Your task to perform on an android device: delete location history Image 0: 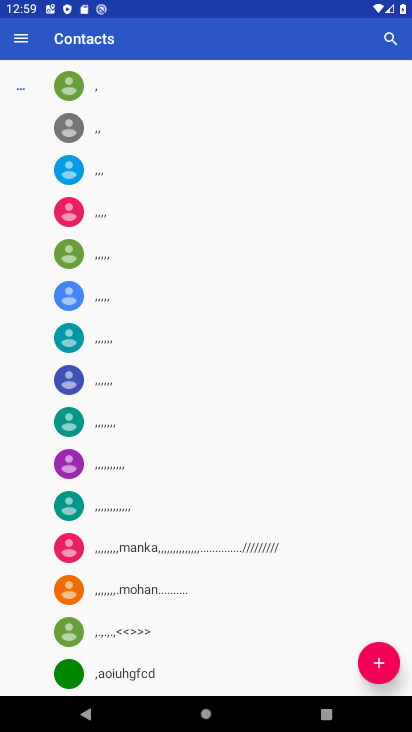
Step 0: press home button
Your task to perform on an android device: delete location history Image 1: 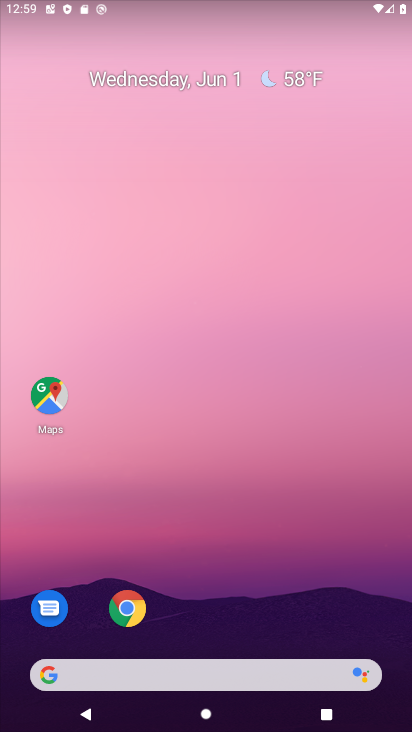
Step 1: drag from (237, 467) to (294, 165)
Your task to perform on an android device: delete location history Image 2: 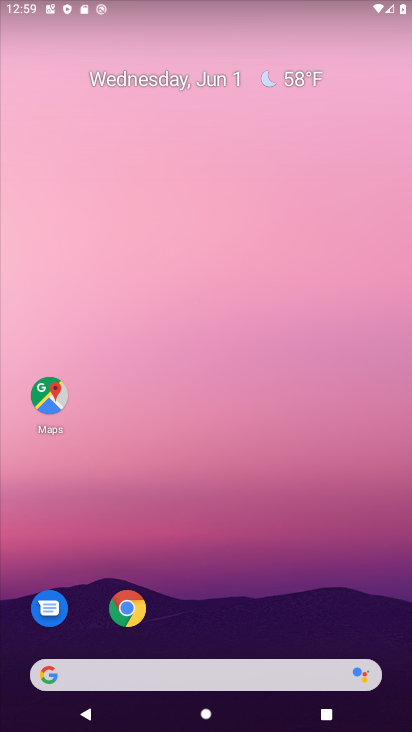
Step 2: drag from (178, 671) to (297, 147)
Your task to perform on an android device: delete location history Image 3: 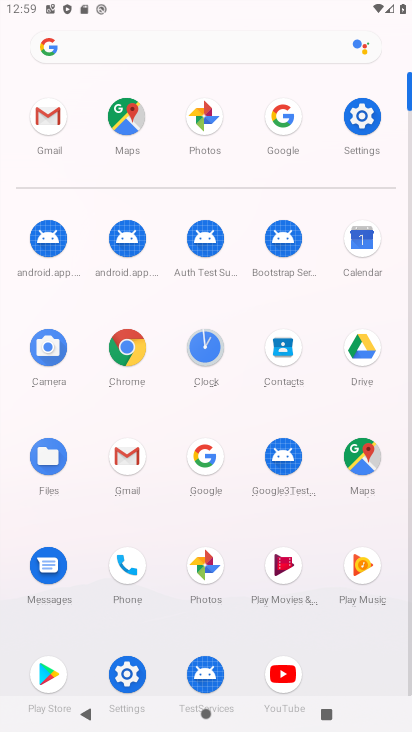
Step 3: click (362, 113)
Your task to perform on an android device: delete location history Image 4: 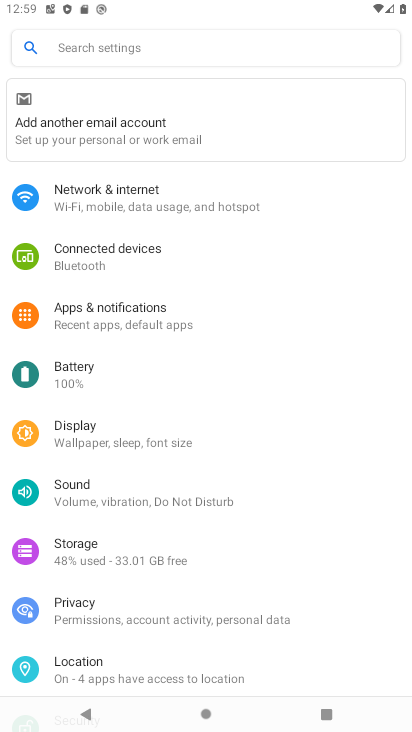
Step 4: click (105, 665)
Your task to perform on an android device: delete location history Image 5: 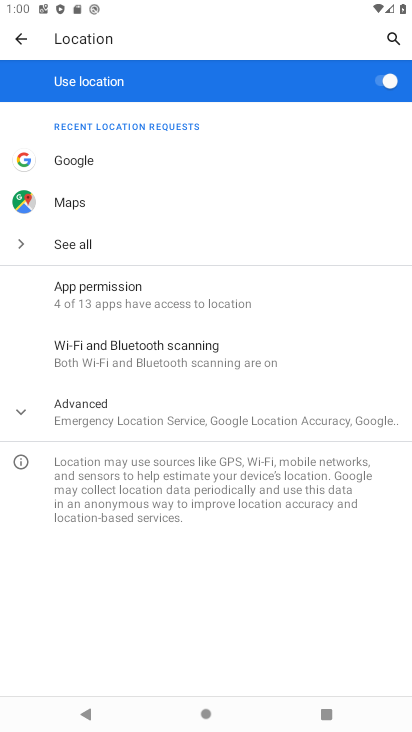
Step 5: click (155, 395)
Your task to perform on an android device: delete location history Image 6: 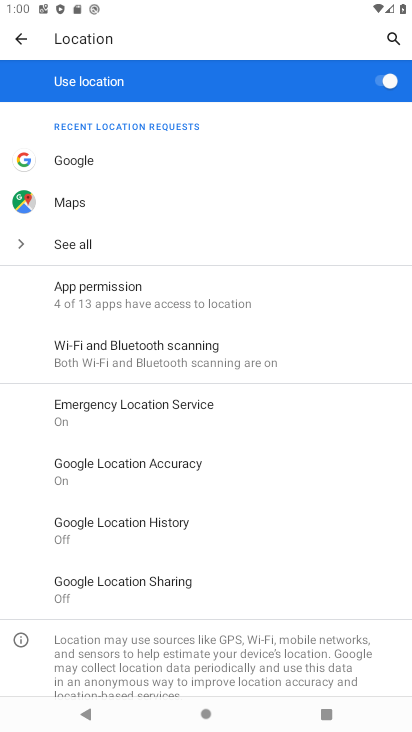
Step 6: click (154, 521)
Your task to perform on an android device: delete location history Image 7: 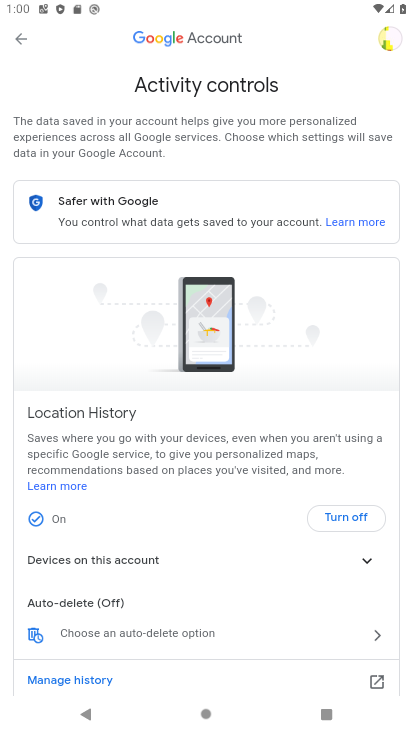
Step 7: drag from (204, 583) to (326, 181)
Your task to perform on an android device: delete location history Image 8: 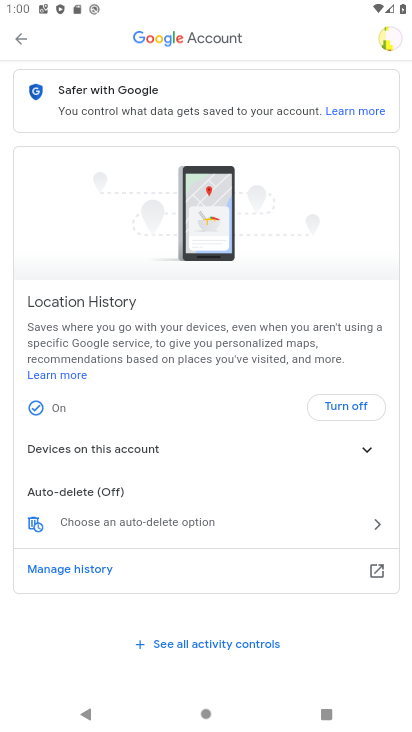
Step 8: click (131, 513)
Your task to perform on an android device: delete location history Image 9: 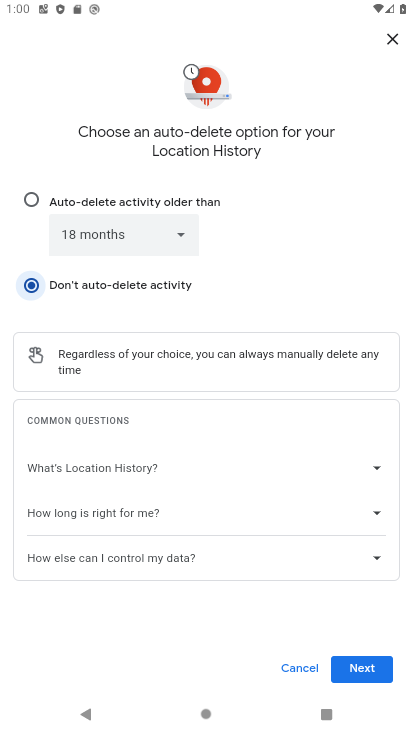
Step 9: click (364, 667)
Your task to perform on an android device: delete location history Image 10: 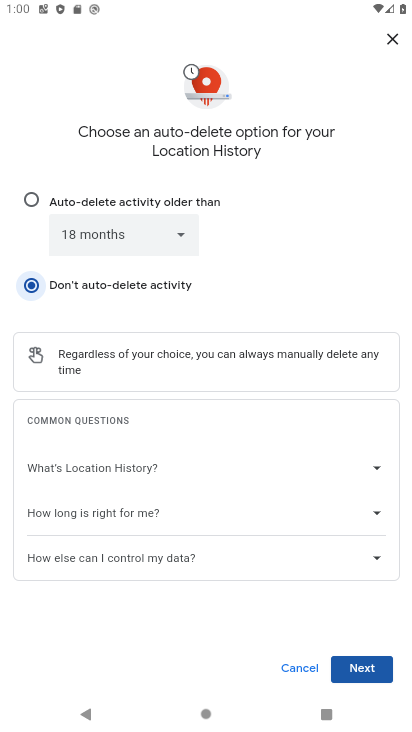
Step 10: click (364, 667)
Your task to perform on an android device: delete location history Image 11: 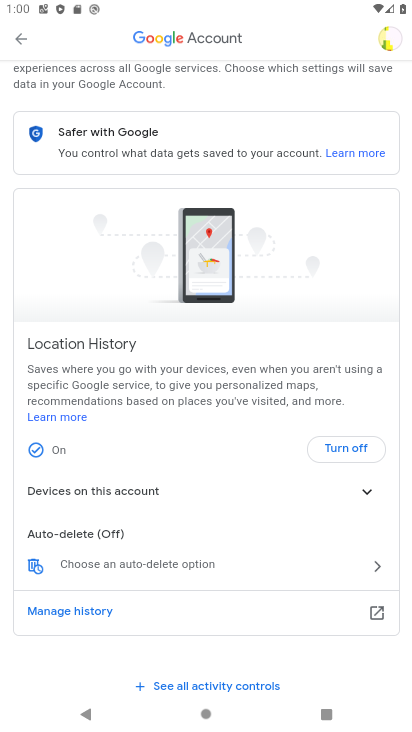
Step 11: task complete